Your task to perform on an android device: check storage Image 0: 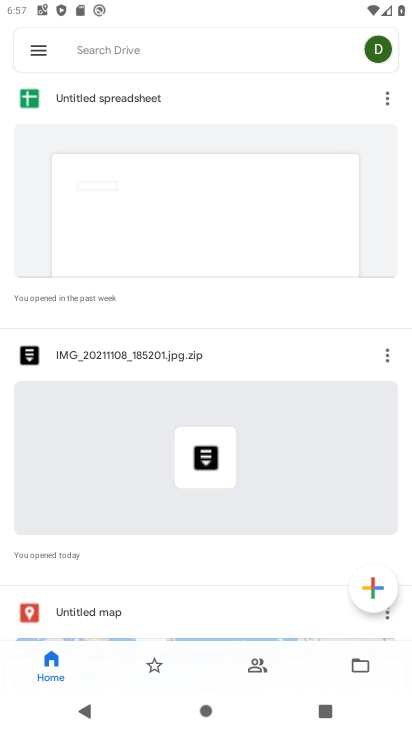
Step 0: press home button
Your task to perform on an android device: check storage Image 1: 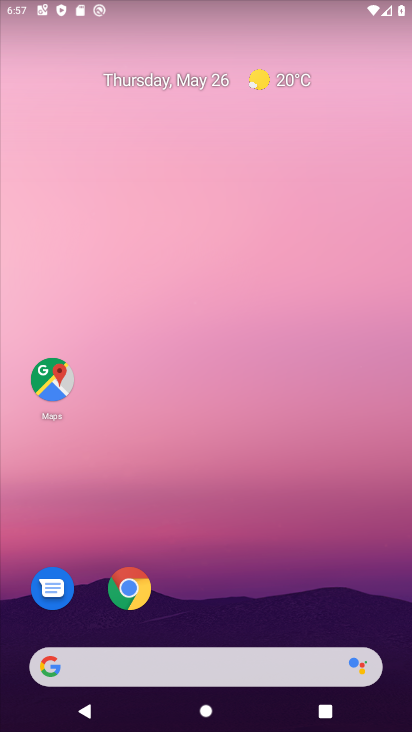
Step 1: drag from (357, 608) to (289, 17)
Your task to perform on an android device: check storage Image 2: 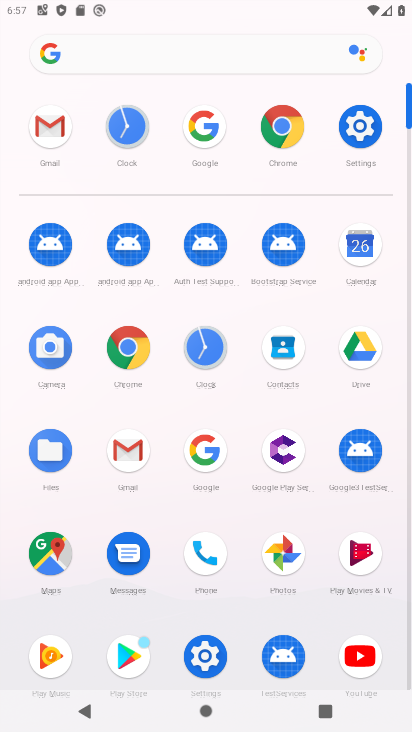
Step 2: click (360, 111)
Your task to perform on an android device: check storage Image 3: 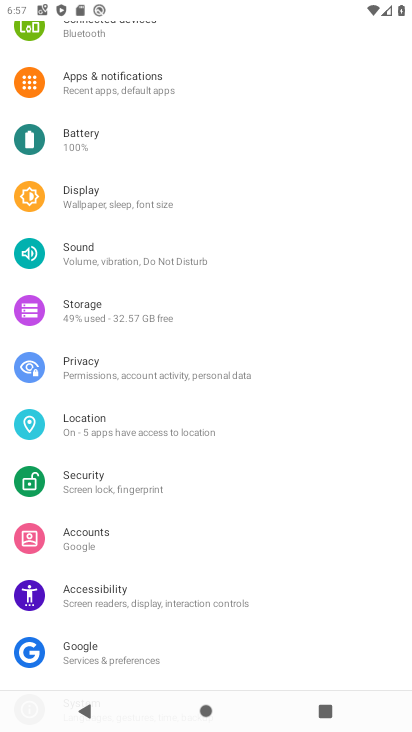
Step 3: click (91, 316)
Your task to perform on an android device: check storage Image 4: 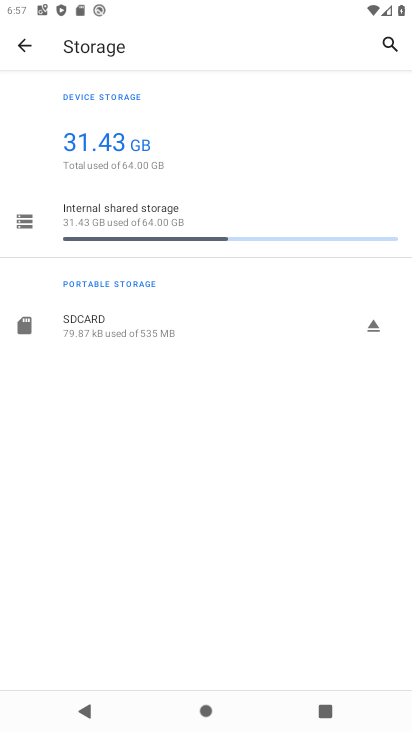
Step 4: click (139, 213)
Your task to perform on an android device: check storage Image 5: 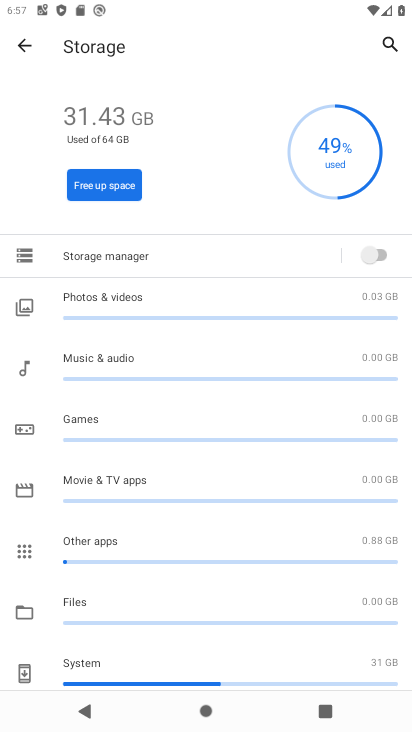
Step 5: task complete